Your task to perform on an android device: Show me recent news Image 0: 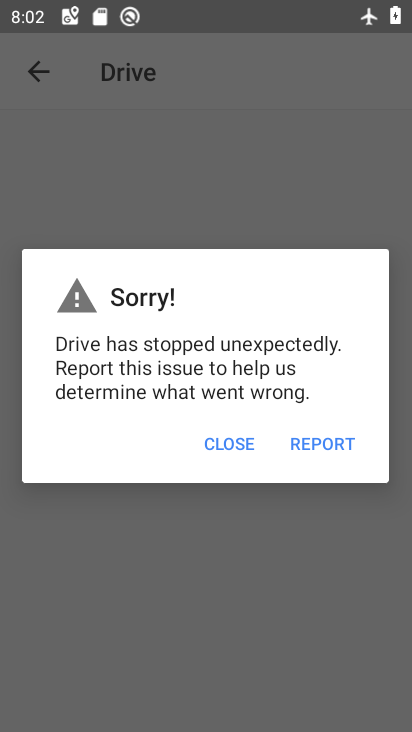
Step 0: press home button
Your task to perform on an android device: Show me recent news Image 1: 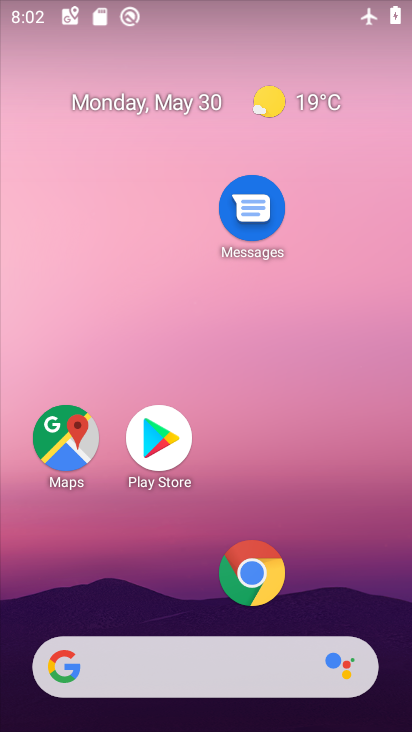
Step 1: drag from (159, 591) to (202, 63)
Your task to perform on an android device: Show me recent news Image 2: 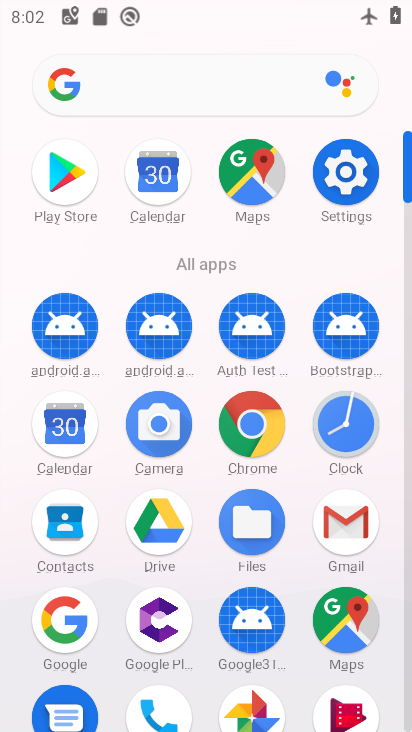
Step 2: click (203, 94)
Your task to perform on an android device: Show me recent news Image 3: 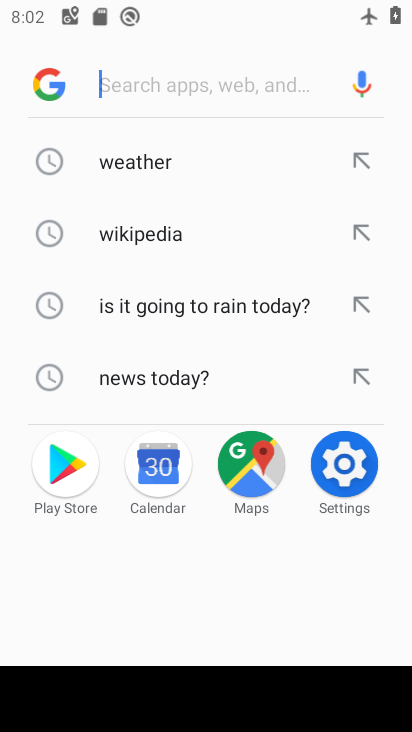
Step 3: type "recent news"
Your task to perform on an android device: Show me recent news Image 4: 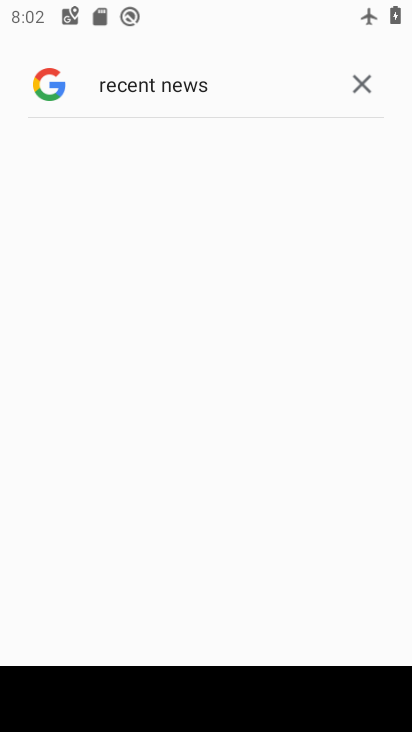
Step 4: click (233, 109)
Your task to perform on an android device: Show me recent news Image 5: 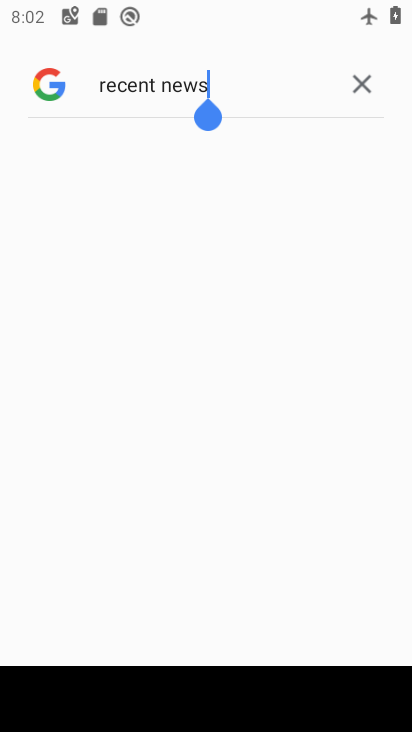
Step 5: click (144, 245)
Your task to perform on an android device: Show me recent news Image 6: 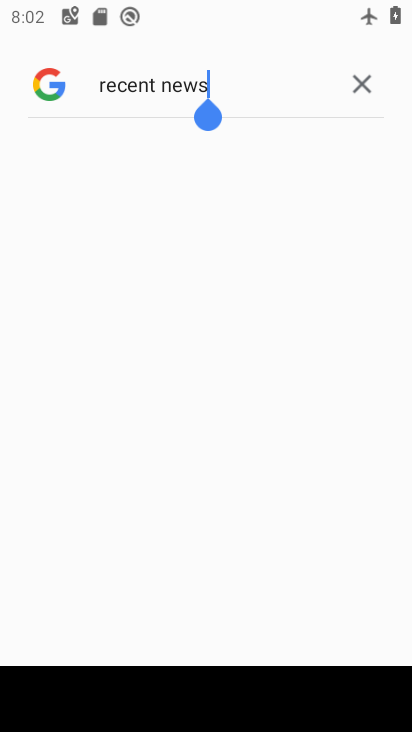
Step 6: click (145, 248)
Your task to perform on an android device: Show me recent news Image 7: 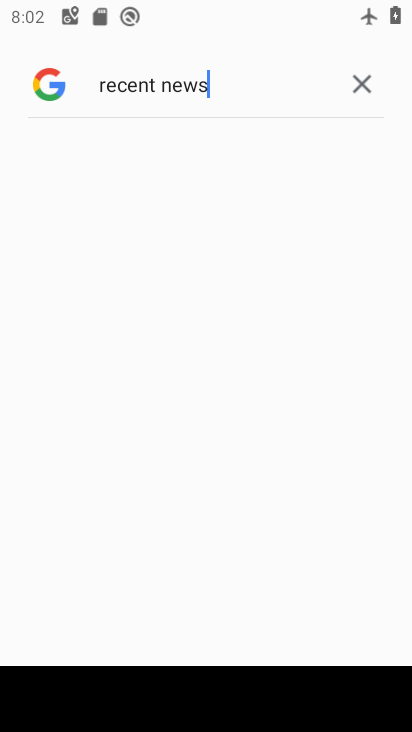
Step 7: click (166, 130)
Your task to perform on an android device: Show me recent news Image 8: 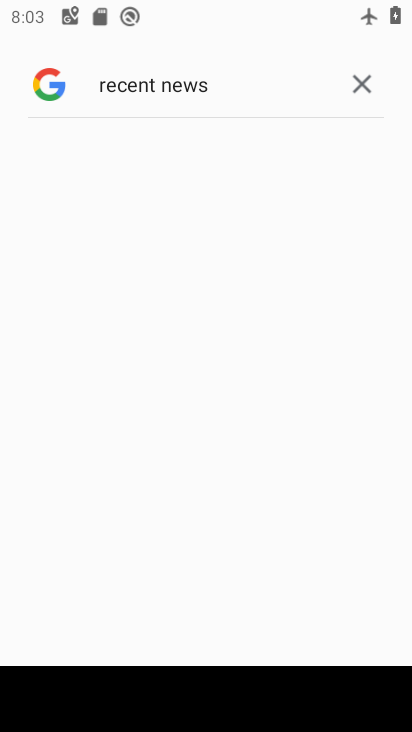
Step 8: click (169, 137)
Your task to perform on an android device: Show me recent news Image 9: 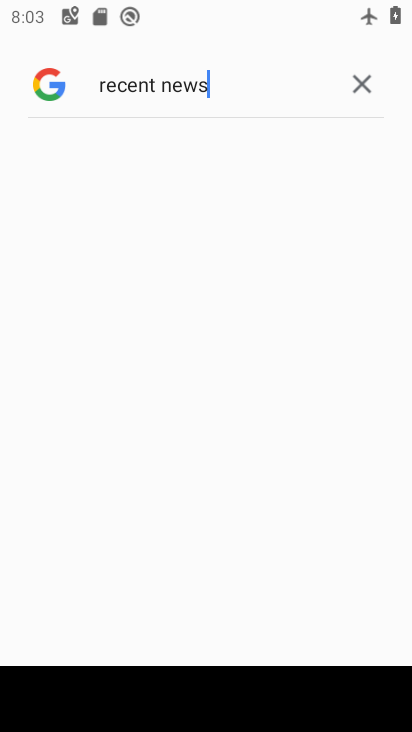
Step 9: task complete